Your task to perform on an android device: What's on my calendar tomorrow? Image 0: 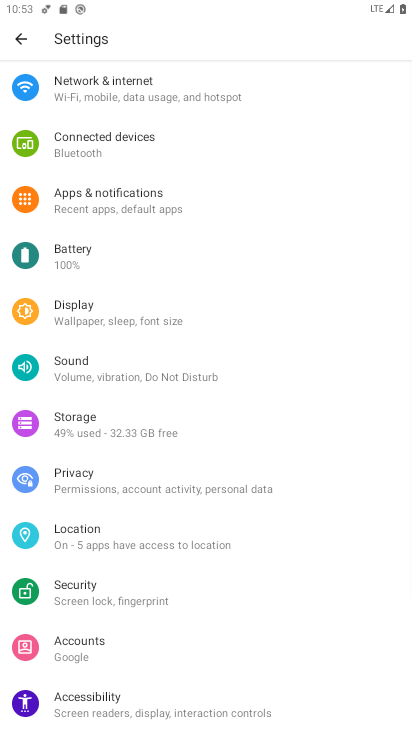
Step 0: press home button
Your task to perform on an android device: What's on my calendar tomorrow? Image 1: 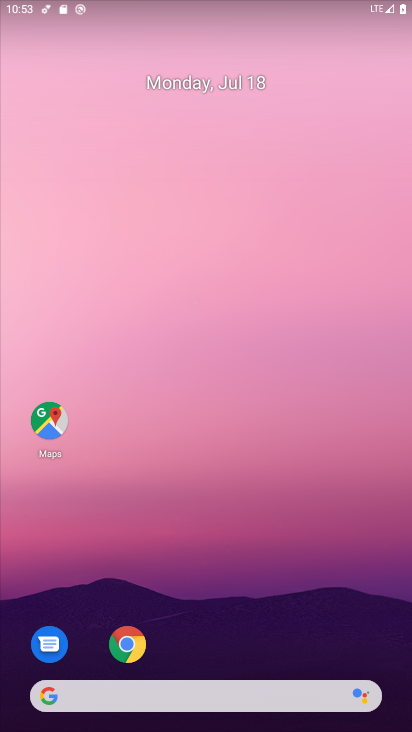
Step 1: drag from (355, 592) to (351, 86)
Your task to perform on an android device: What's on my calendar tomorrow? Image 2: 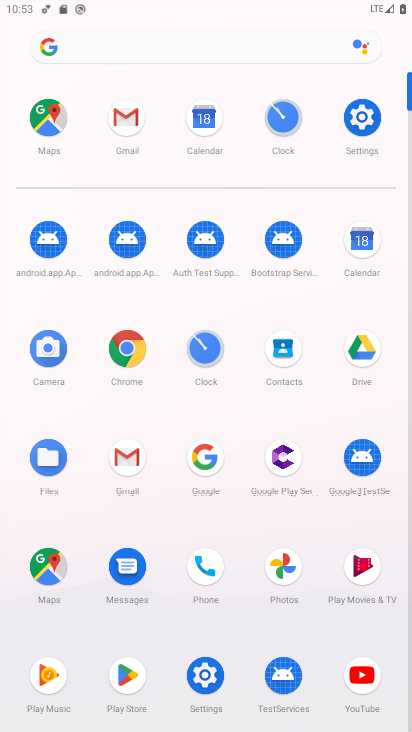
Step 2: click (364, 241)
Your task to perform on an android device: What's on my calendar tomorrow? Image 3: 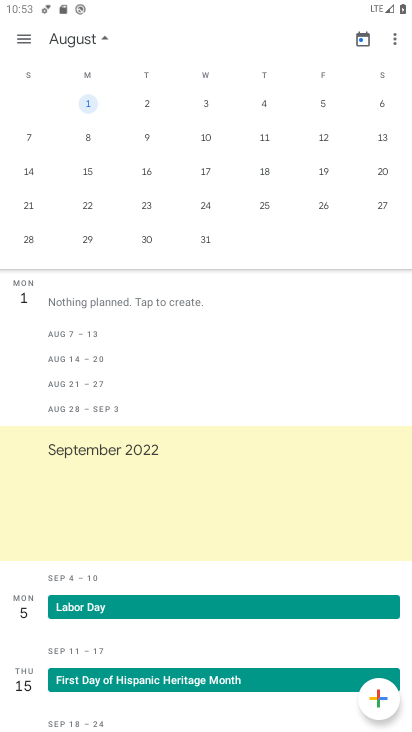
Step 3: drag from (233, 450) to (241, 204)
Your task to perform on an android device: What's on my calendar tomorrow? Image 4: 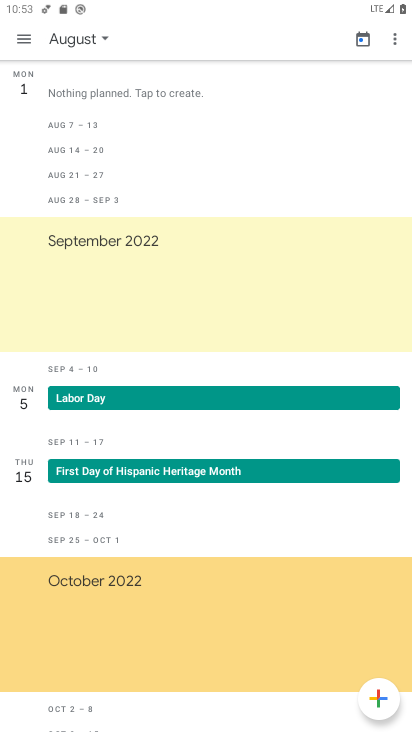
Step 4: drag from (245, 136) to (246, 285)
Your task to perform on an android device: What's on my calendar tomorrow? Image 5: 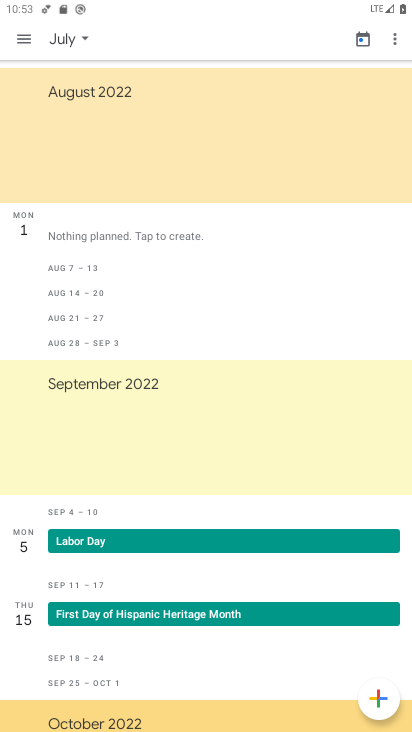
Step 5: drag from (221, 143) to (224, 343)
Your task to perform on an android device: What's on my calendar tomorrow? Image 6: 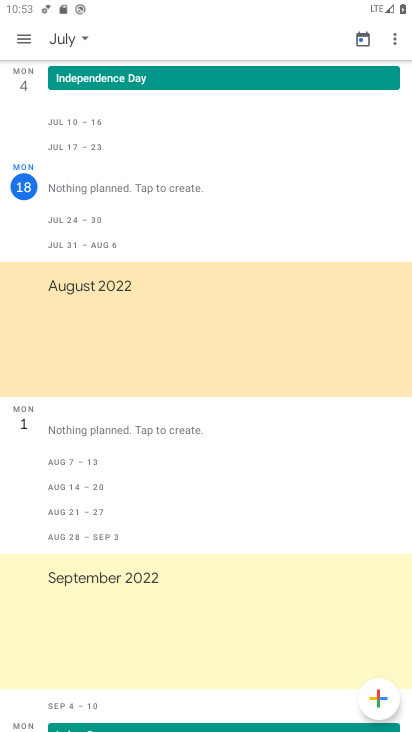
Step 6: click (87, 37)
Your task to perform on an android device: What's on my calendar tomorrow? Image 7: 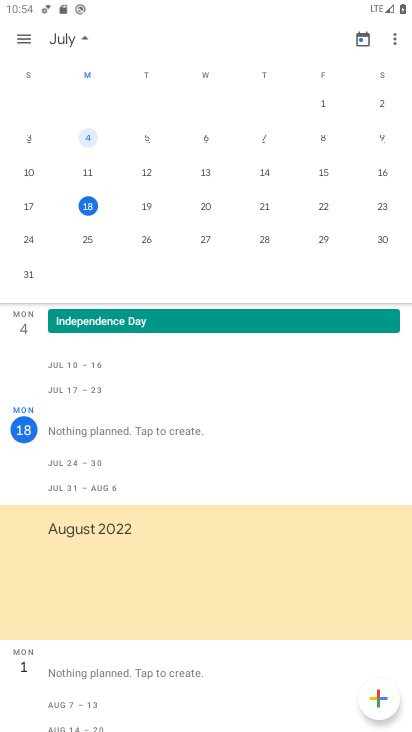
Step 7: click (208, 201)
Your task to perform on an android device: What's on my calendar tomorrow? Image 8: 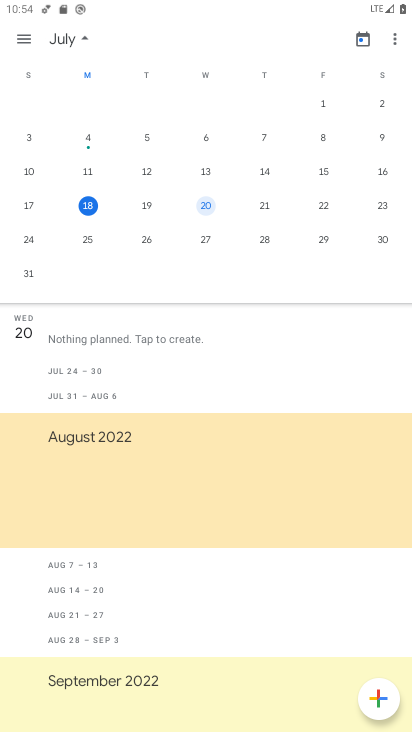
Step 8: task complete